Your task to perform on an android device: Open Maps and search for coffee Image 0: 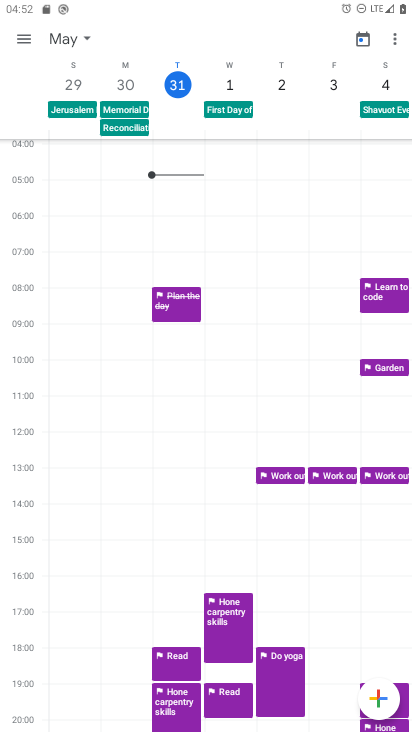
Step 0: press home button
Your task to perform on an android device: Open Maps and search for coffee Image 1: 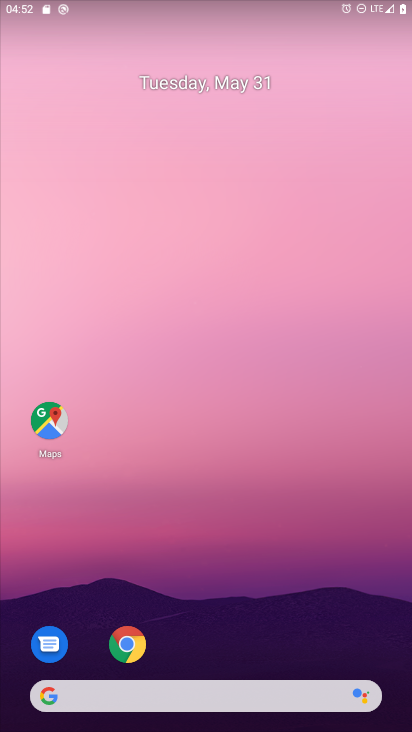
Step 1: drag from (271, 618) to (247, 80)
Your task to perform on an android device: Open Maps and search for coffee Image 2: 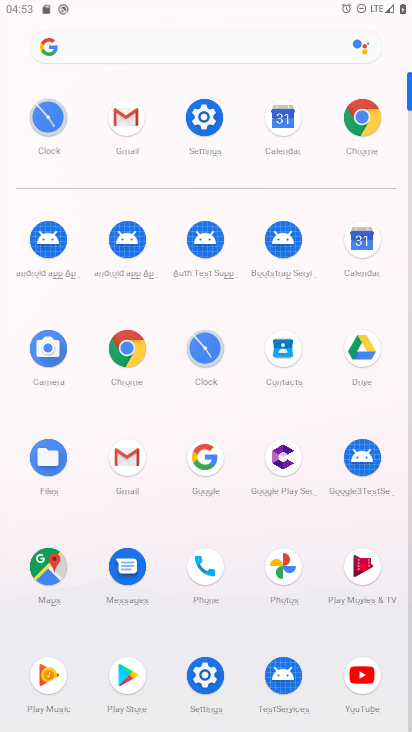
Step 2: click (36, 563)
Your task to perform on an android device: Open Maps and search for coffee Image 3: 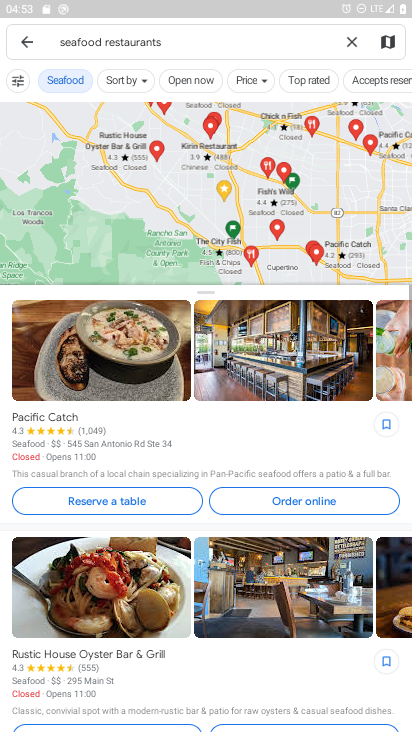
Step 3: click (136, 37)
Your task to perform on an android device: Open Maps and search for coffee Image 4: 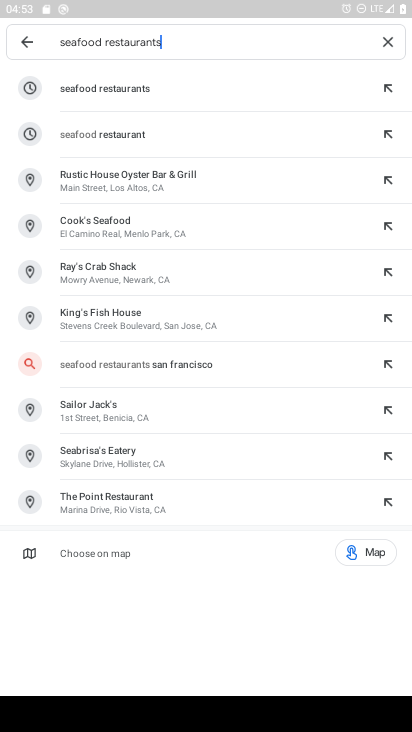
Step 4: click (385, 47)
Your task to perform on an android device: Open Maps and search for coffee Image 5: 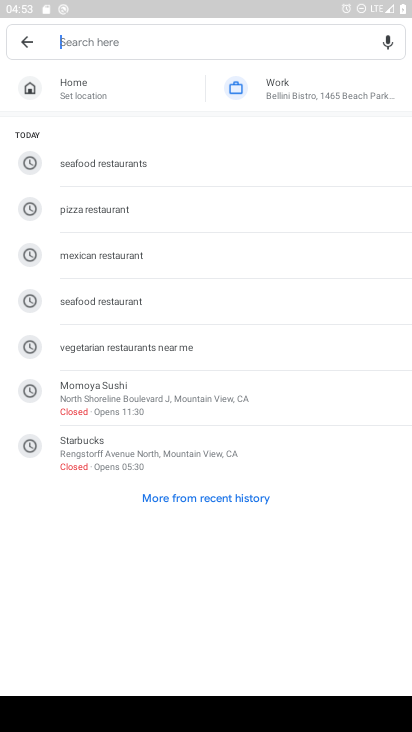
Step 5: type "coffee"
Your task to perform on an android device: Open Maps and search for coffee Image 6: 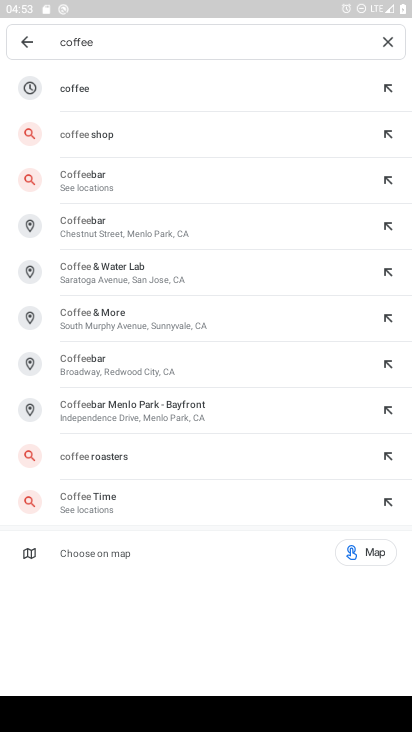
Step 6: click (83, 93)
Your task to perform on an android device: Open Maps and search for coffee Image 7: 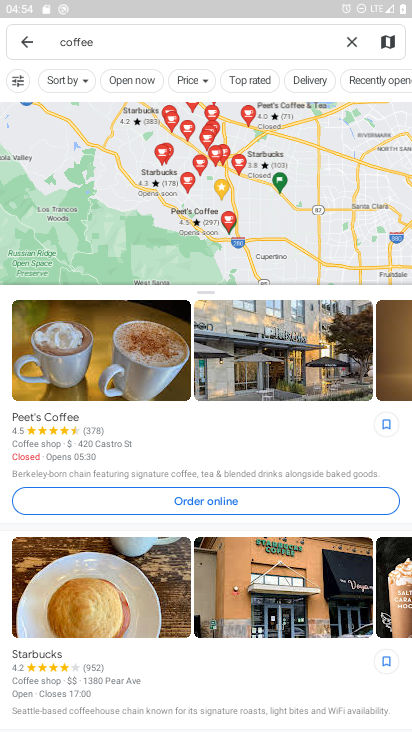
Step 7: task complete